Your task to perform on an android device: Go to Yahoo.com Image 0: 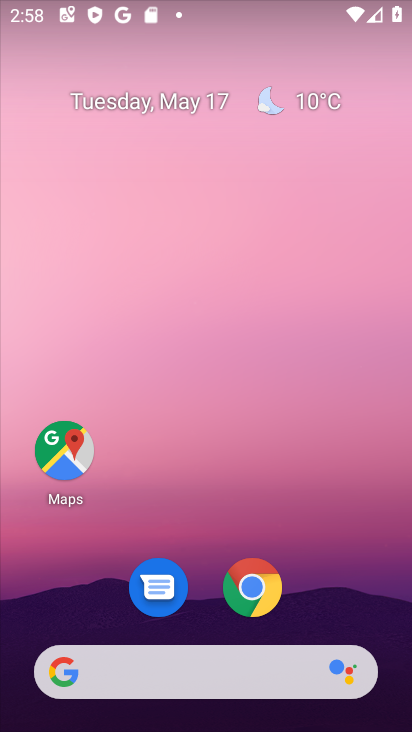
Step 0: drag from (344, 545) to (260, 50)
Your task to perform on an android device: Go to Yahoo.com Image 1: 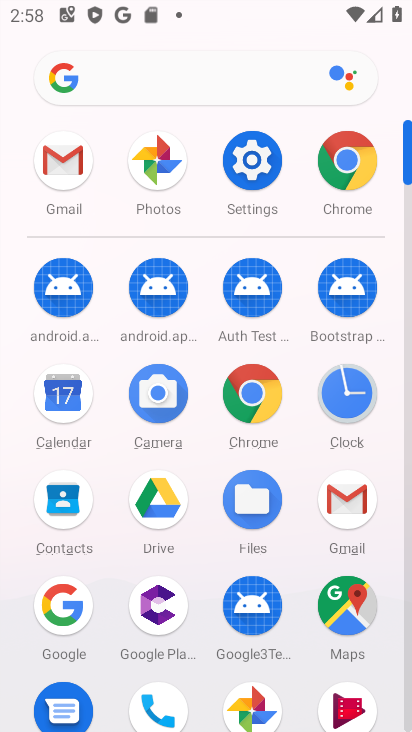
Step 1: drag from (7, 590) to (7, 312)
Your task to perform on an android device: Go to Yahoo.com Image 2: 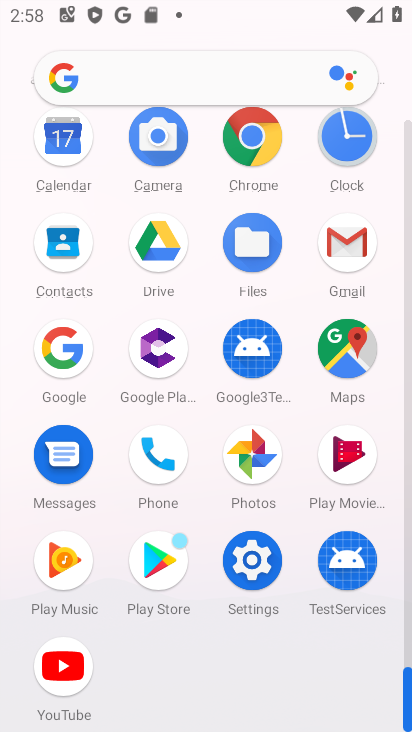
Step 2: click (247, 132)
Your task to perform on an android device: Go to Yahoo.com Image 3: 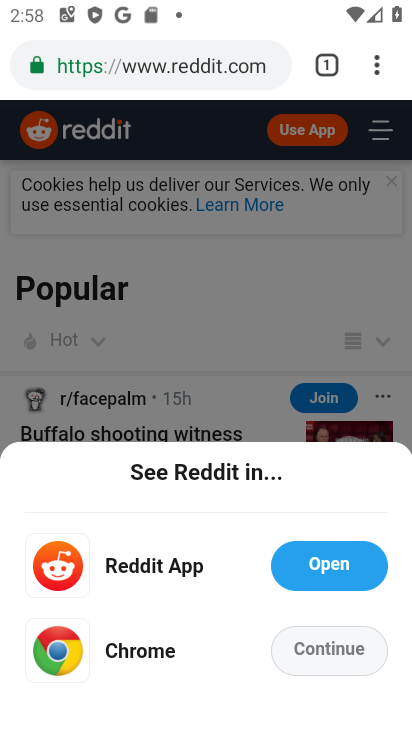
Step 3: click (210, 63)
Your task to perform on an android device: Go to Yahoo.com Image 4: 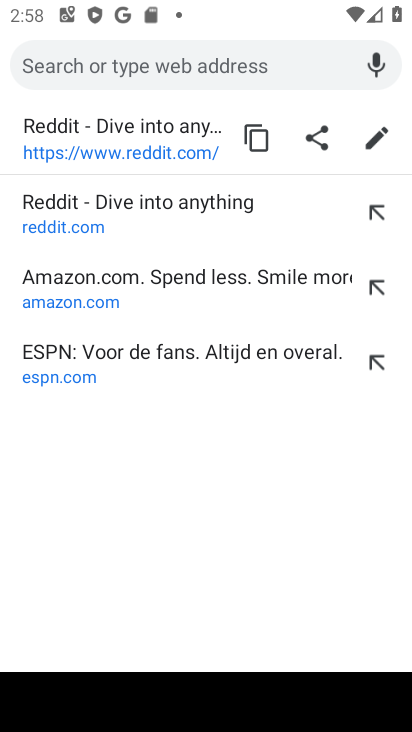
Step 4: type "Yahoo.com"
Your task to perform on an android device: Go to Yahoo.com Image 5: 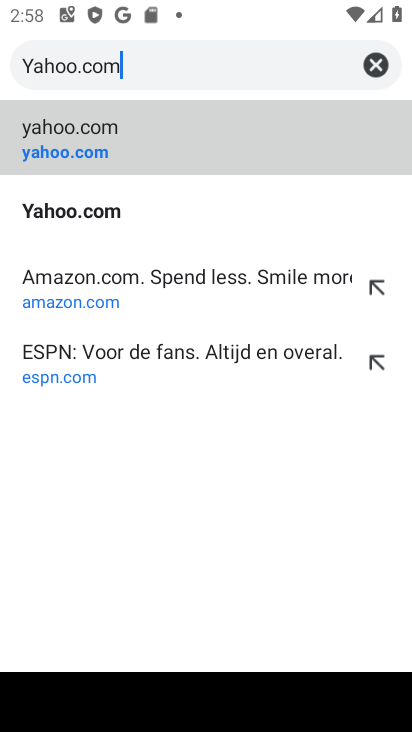
Step 5: type ""
Your task to perform on an android device: Go to Yahoo.com Image 6: 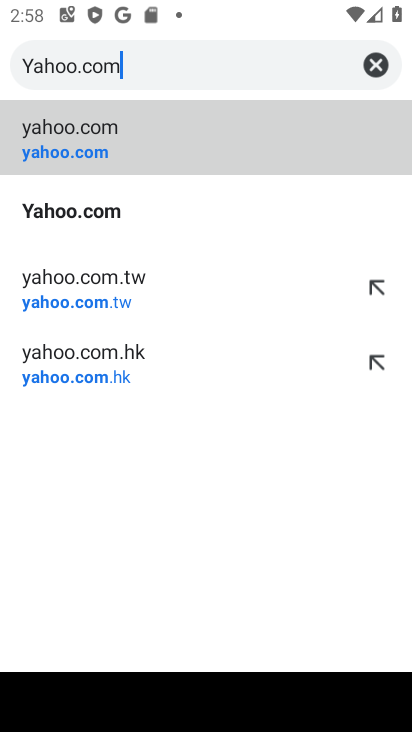
Step 6: click (146, 131)
Your task to perform on an android device: Go to Yahoo.com Image 7: 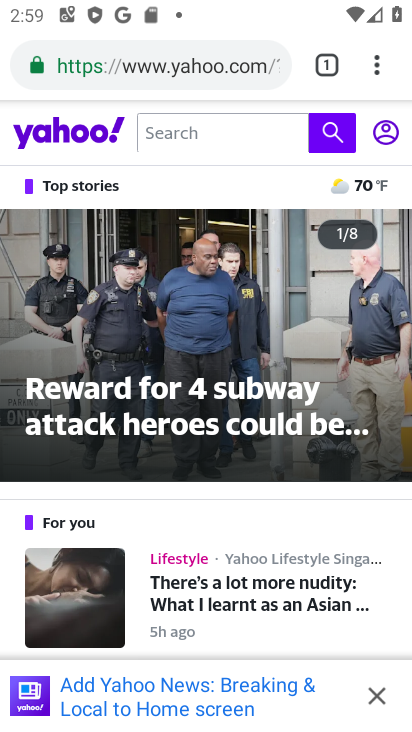
Step 7: task complete